Your task to perform on an android device: snooze an email in the gmail app Image 0: 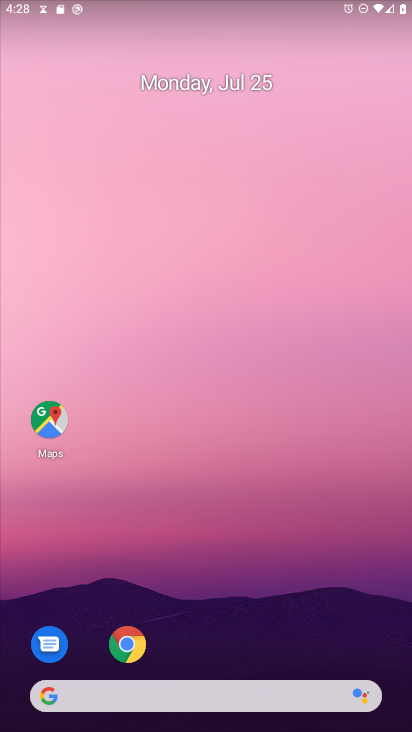
Step 0: press home button
Your task to perform on an android device: snooze an email in the gmail app Image 1: 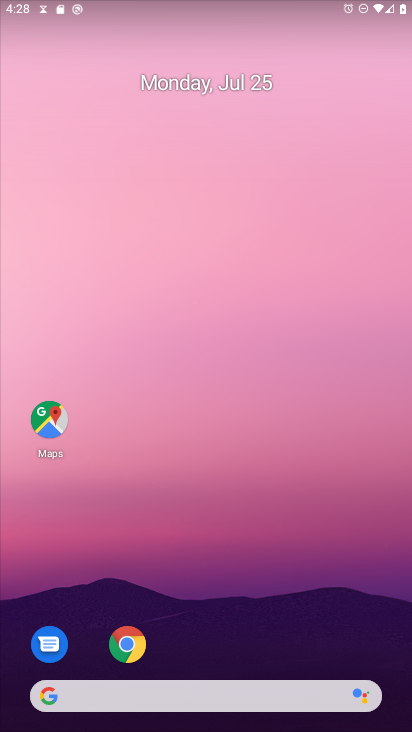
Step 1: drag from (240, 568) to (223, 126)
Your task to perform on an android device: snooze an email in the gmail app Image 2: 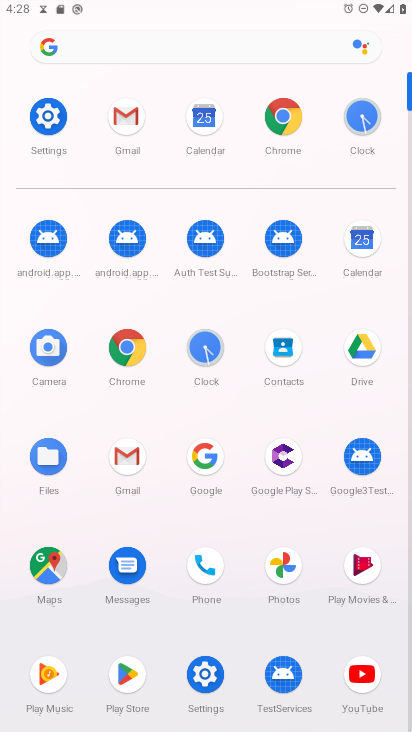
Step 2: click (117, 121)
Your task to perform on an android device: snooze an email in the gmail app Image 3: 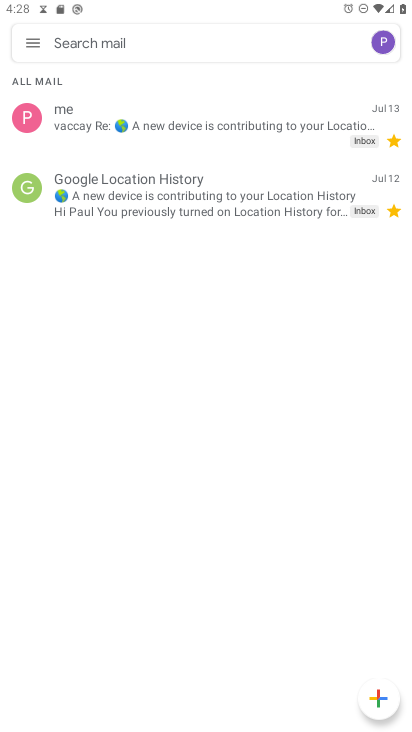
Step 3: click (227, 116)
Your task to perform on an android device: snooze an email in the gmail app Image 4: 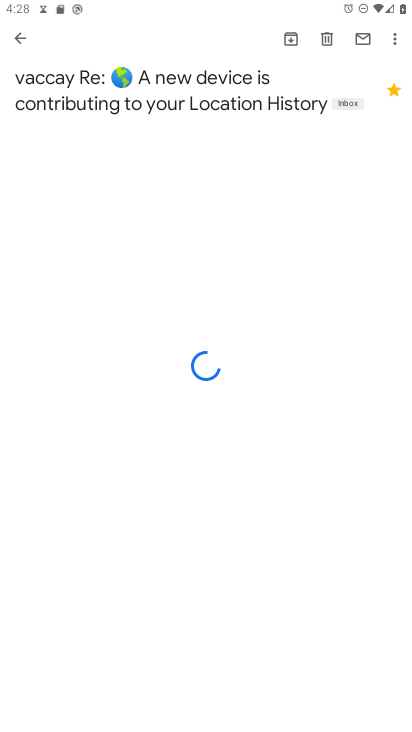
Step 4: click (397, 33)
Your task to perform on an android device: snooze an email in the gmail app Image 5: 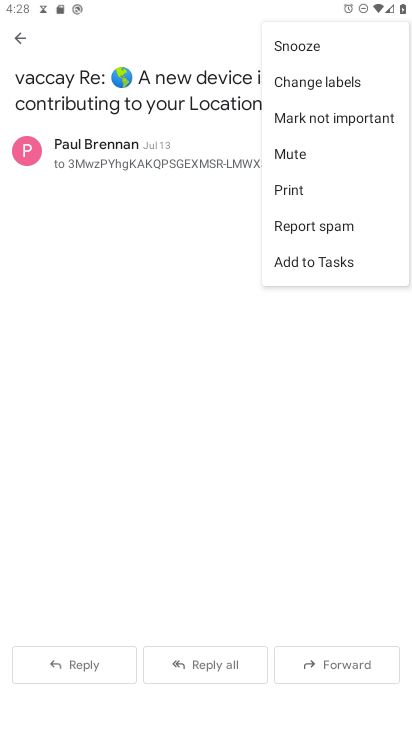
Step 5: click (296, 41)
Your task to perform on an android device: snooze an email in the gmail app Image 6: 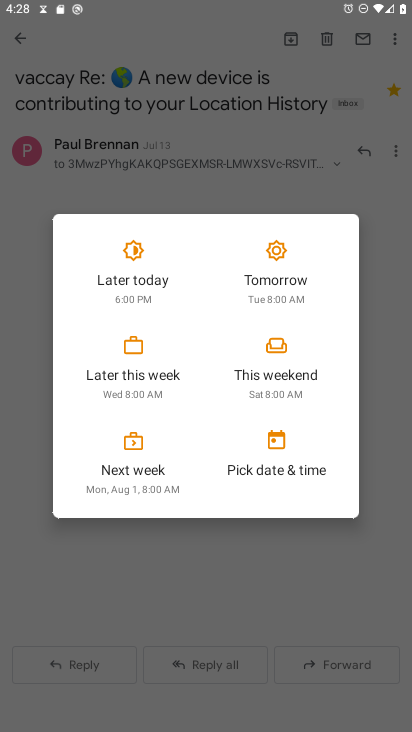
Step 6: click (130, 349)
Your task to perform on an android device: snooze an email in the gmail app Image 7: 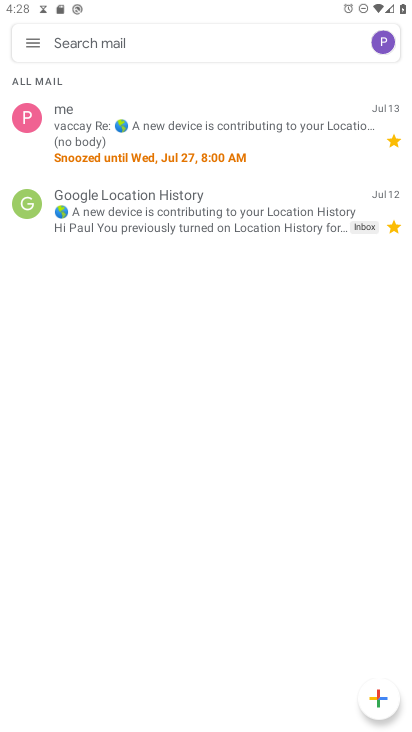
Step 7: task complete